Your task to perform on an android device: install app "Booking.com: Hotels and more" Image 0: 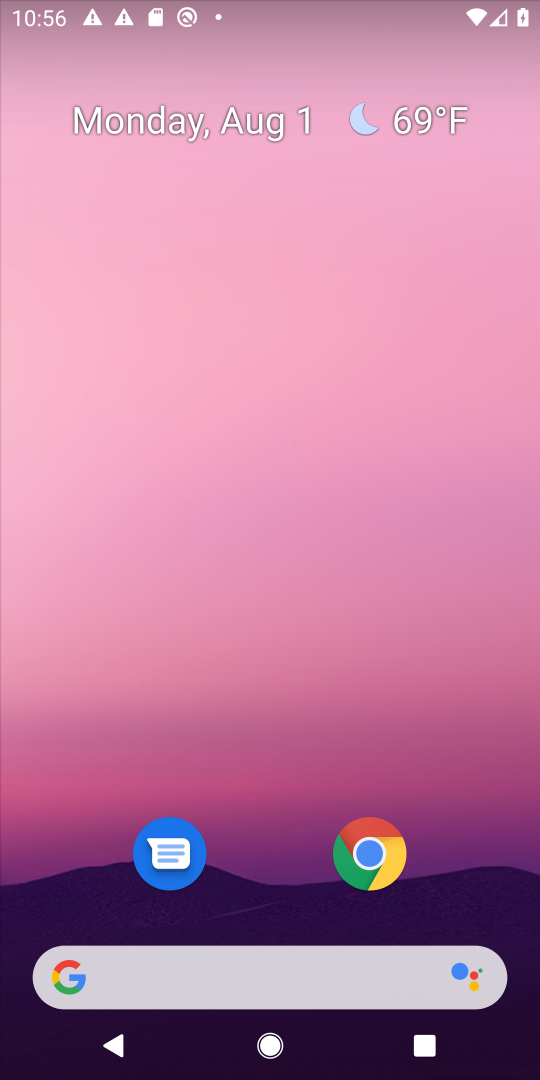
Step 0: drag from (229, 876) to (247, 173)
Your task to perform on an android device: install app "Booking.com: Hotels and more" Image 1: 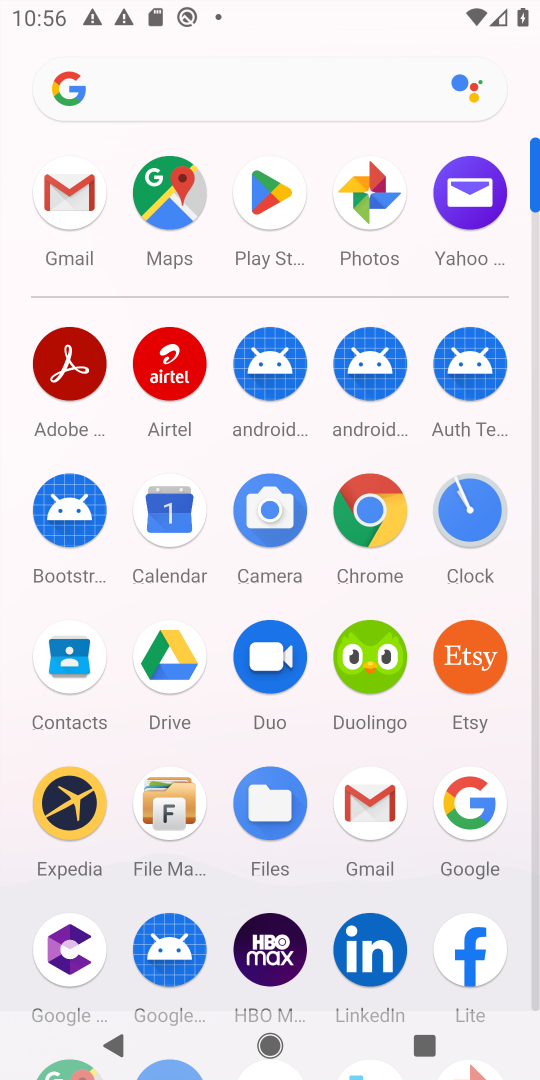
Step 1: click (272, 206)
Your task to perform on an android device: install app "Booking.com: Hotels and more" Image 2: 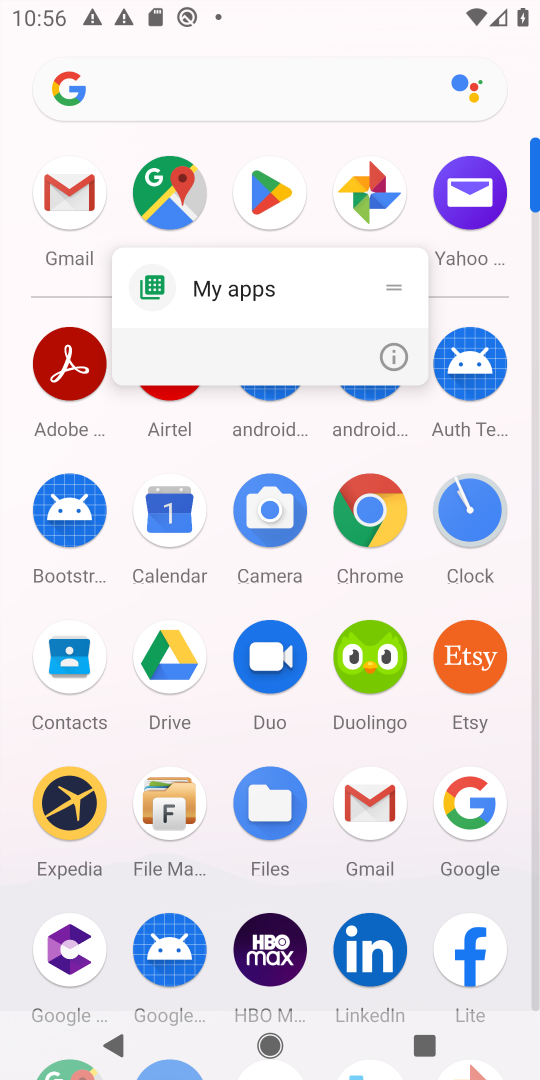
Step 2: click (401, 367)
Your task to perform on an android device: install app "Booking.com: Hotels and more" Image 3: 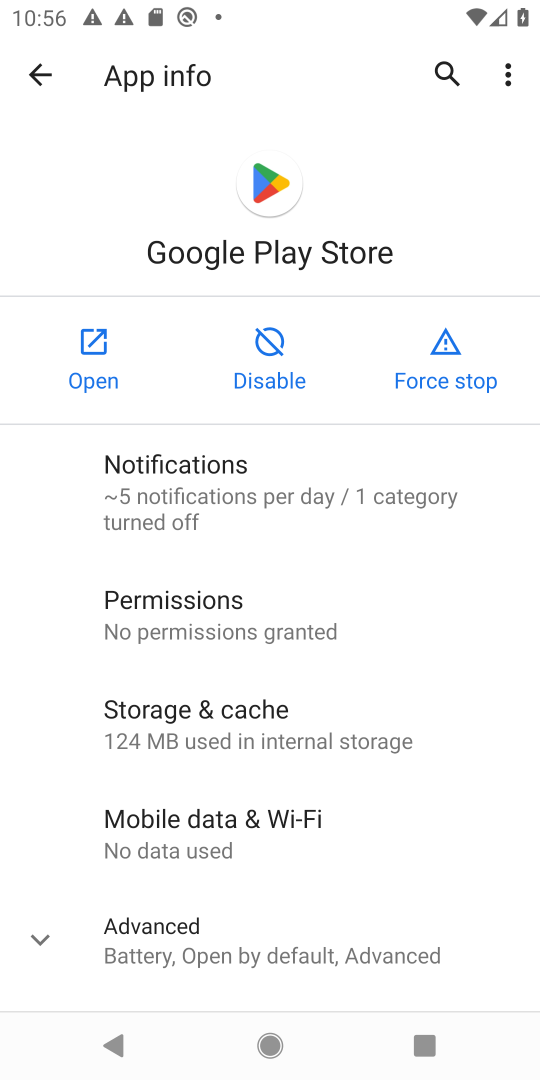
Step 3: click (93, 331)
Your task to perform on an android device: install app "Booking.com: Hotels and more" Image 4: 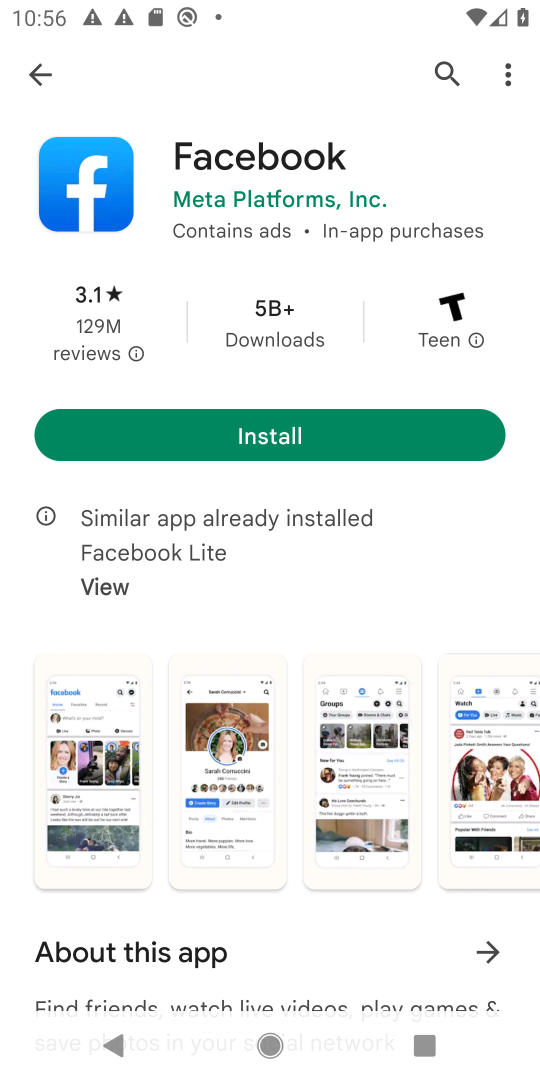
Step 4: click (477, 76)
Your task to perform on an android device: install app "Booking.com: Hotels and more" Image 5: 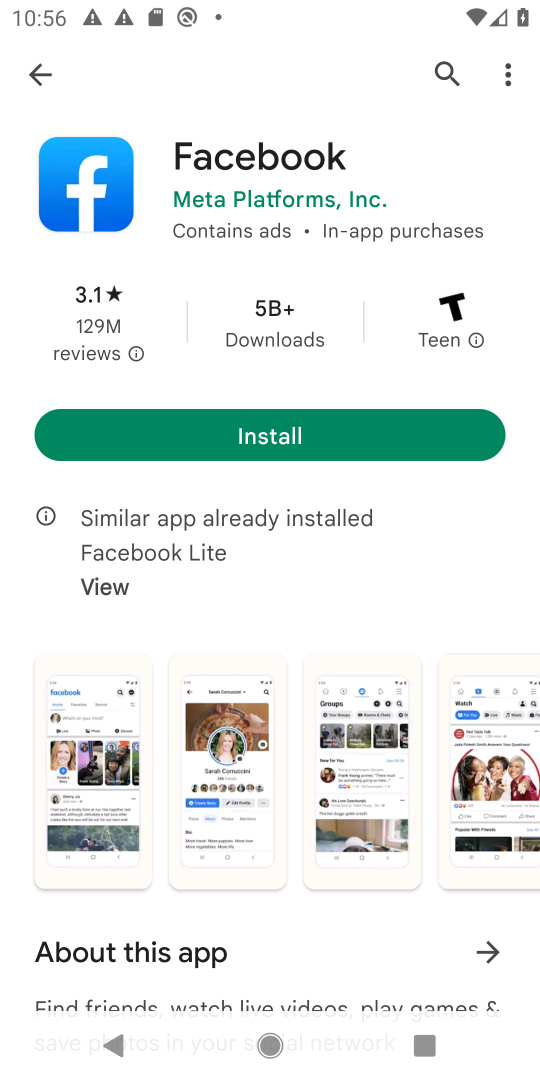
Step 5: click (421, 76)
Your task to perform on an android device: install app "Booking.com: Hotels and more" Image 6: 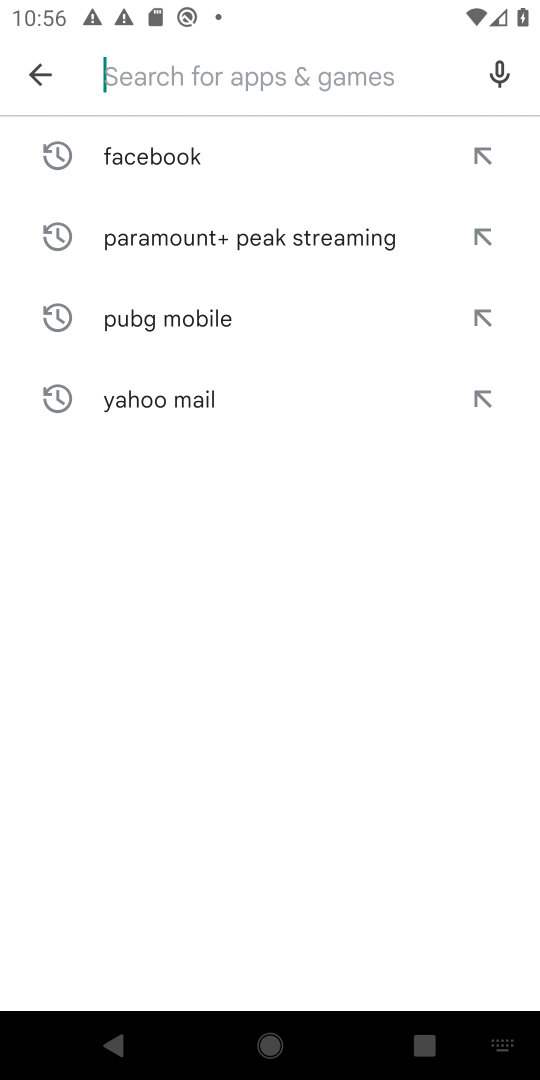
Step 6: type "Booking.com: Hotels and more"
Your task to perform on an android device: install app "Booking.com: Hotels and more" Image 7: 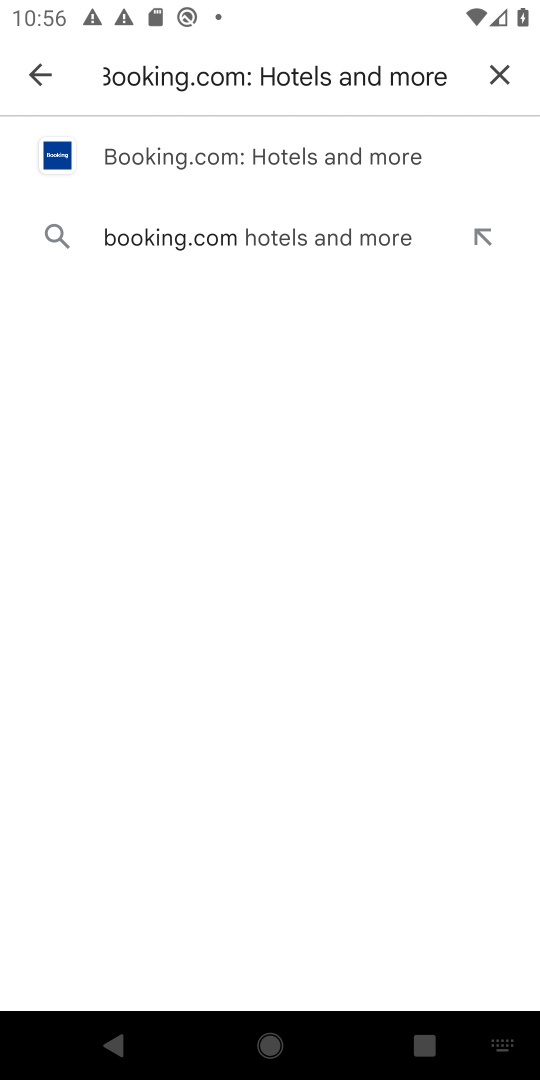
Step 7: click (167, 150)
Your task to perform on an android device: install app "Booking.com: Hotels and more" Image 8: 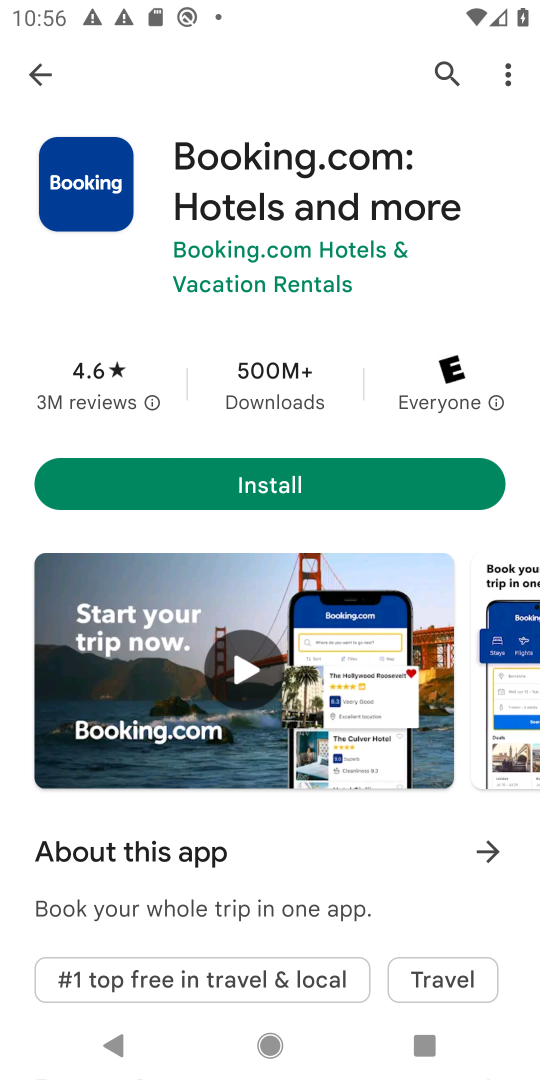
Step 8: drag from (371, 346) to (457, 895)
Your task to perform on an android device: install app "Booking.com: Hotels and more" Image 9: 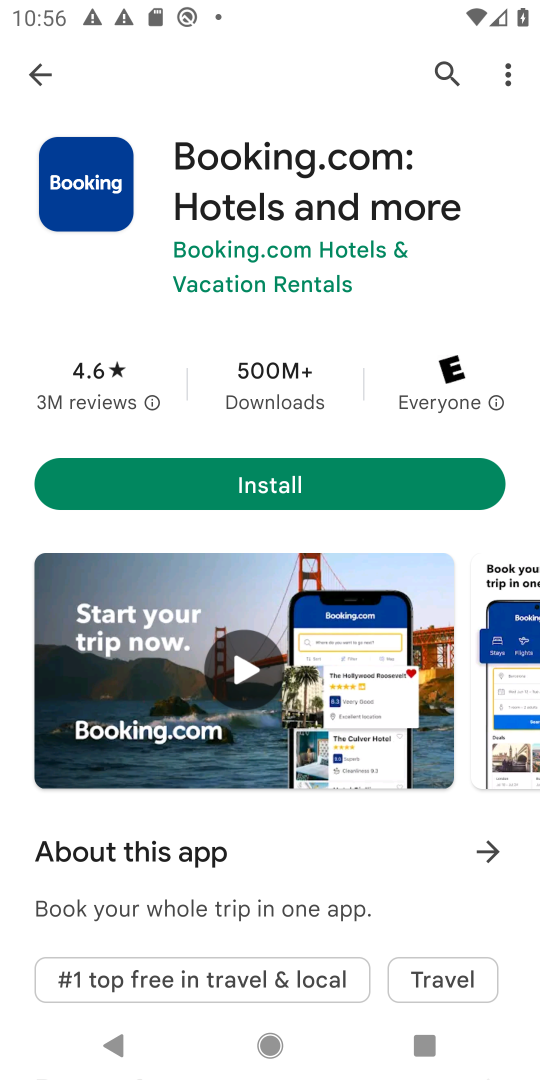
Step 9: click (196, 478)
Your task to perform on an android device: install app "Booking.com: Hotels and more" Image 10: 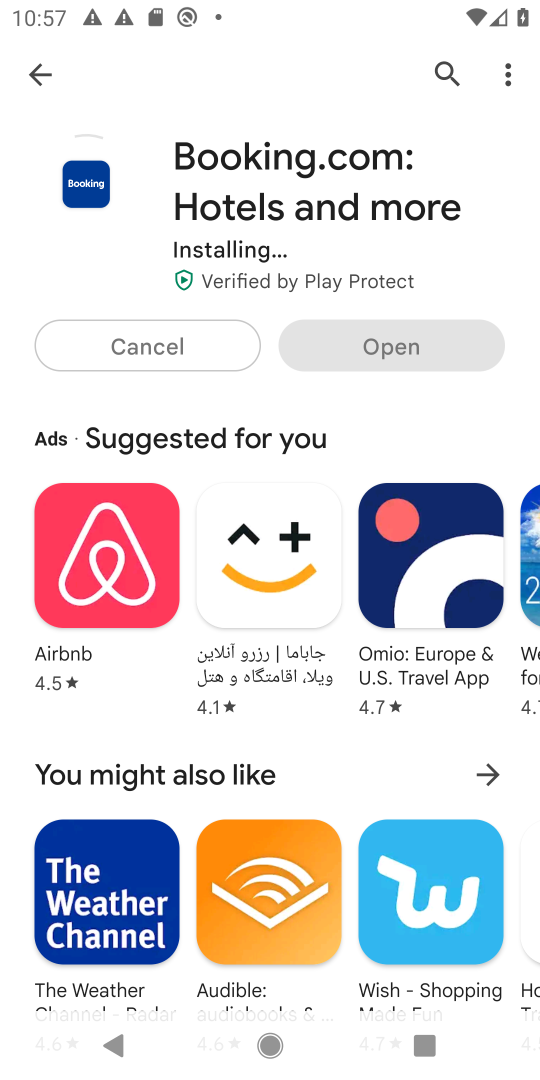
Step 10: task complete